Your task to perform on an android device: turn on sleep mode Image 0: 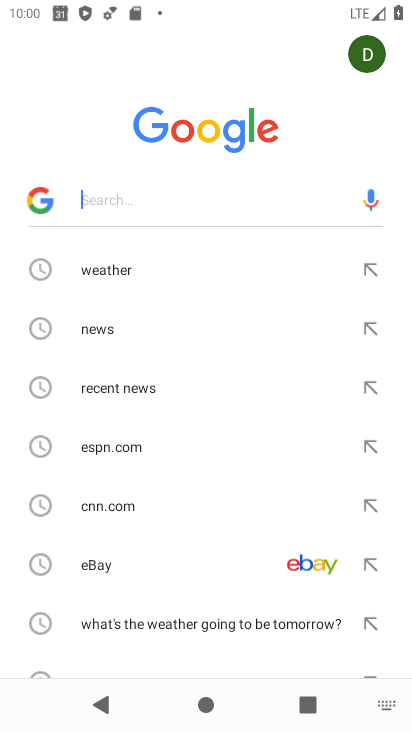
Step 0: drag from (227, 638) to (143, 152)
Your task to perform on an android device: turn on sleep mode Image 1: 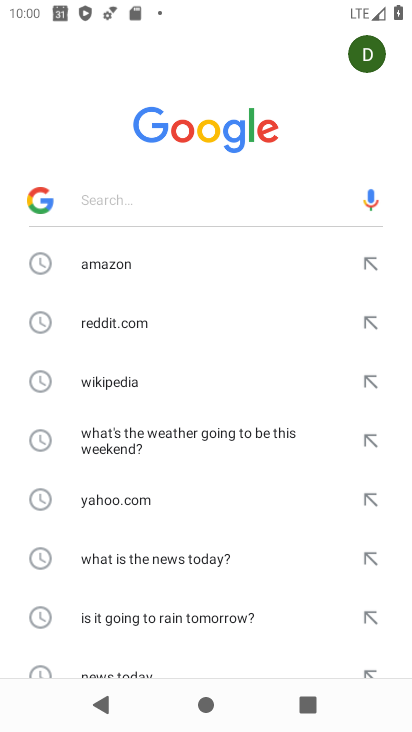
Step 1: press home button
Your task to perform on an android device: turn on sleep mode Image 2: 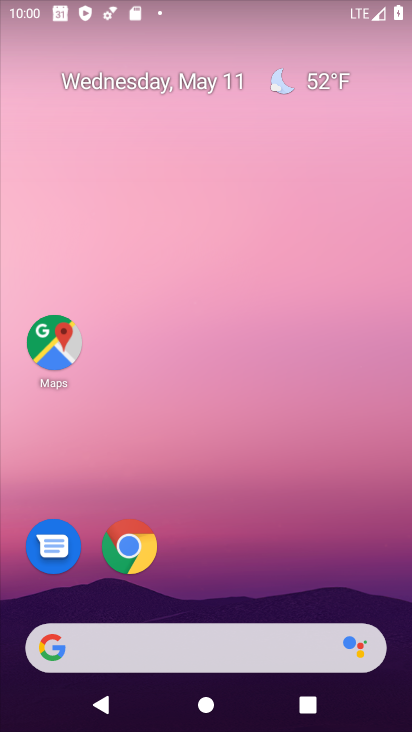
Step 2: drag from (149, 635) to (140, 84)
Your task to perform on an android device: turn on sleep mode Image 3: 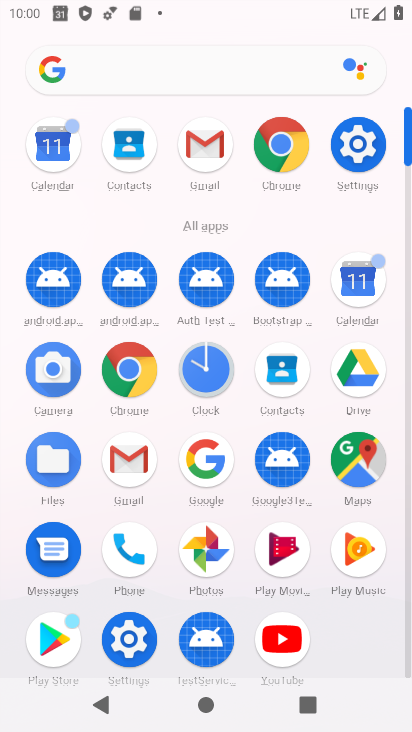
Step 3: click (131, 639)
Your task to perform on an android device: turn on sleep mode Image 4: 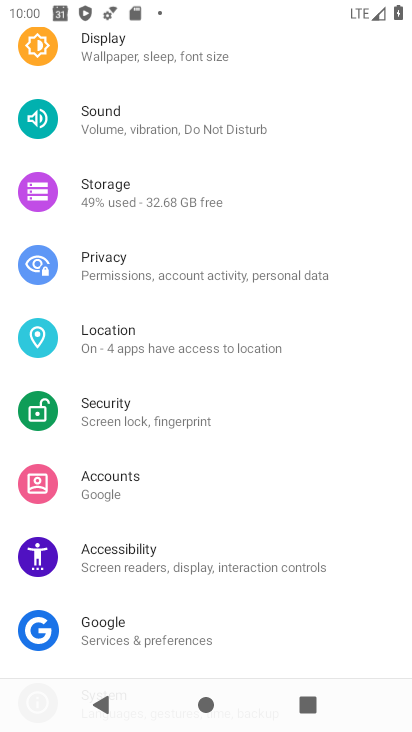
Step 4: click (87, 59)
Your task to perform on an android device: turn on sleep mode Image 5: 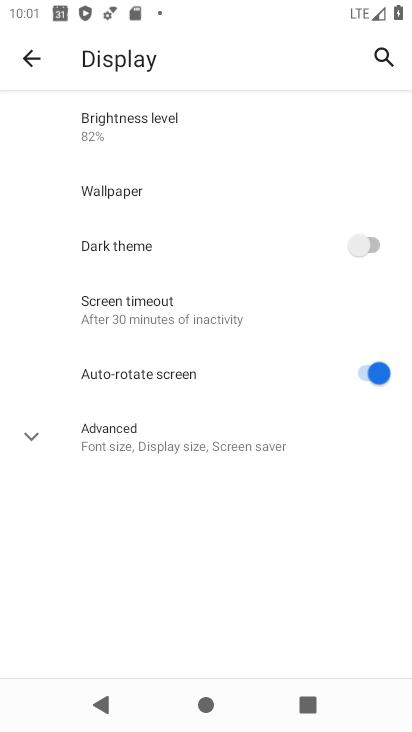
Step 5: click (104, 438)
Your task to perform on an android device: turn on sleep mode Image 6: 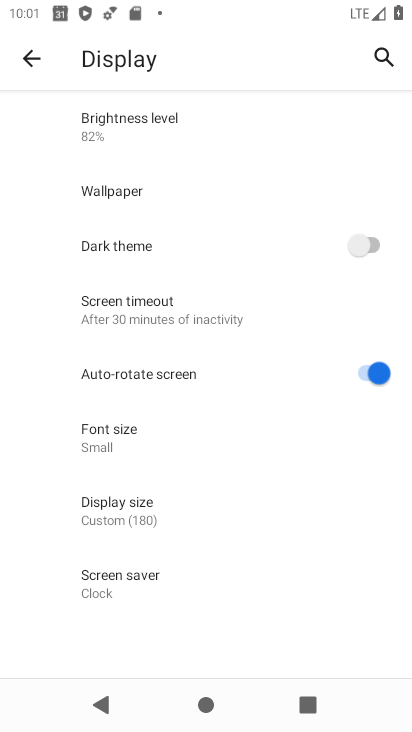
Step 6: task complete